Your task to perform on an android device: check battery use Image 0: 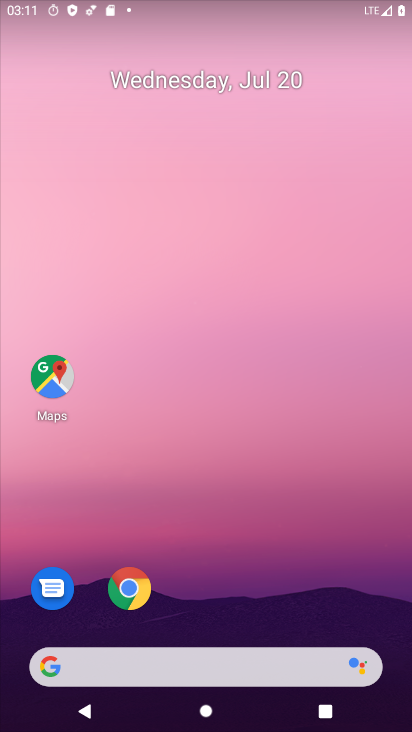
Step 0: drag from (190, 631) to (207, 223)
Your task to perform on an android device: check battery use Image 1: 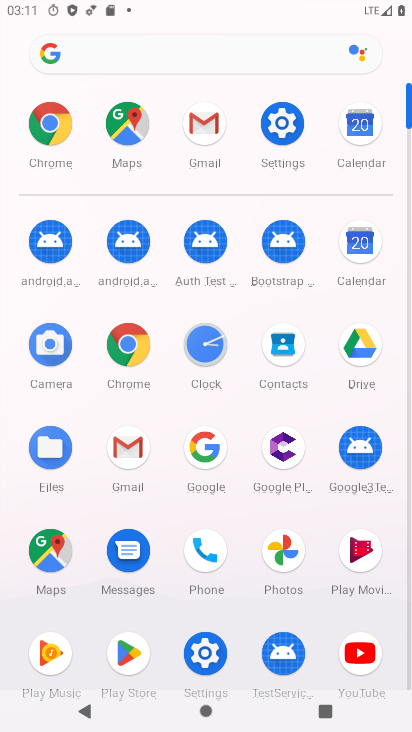
Step 1: click (203, 659)
Your task to perform on an android device: check battery use Image 2: 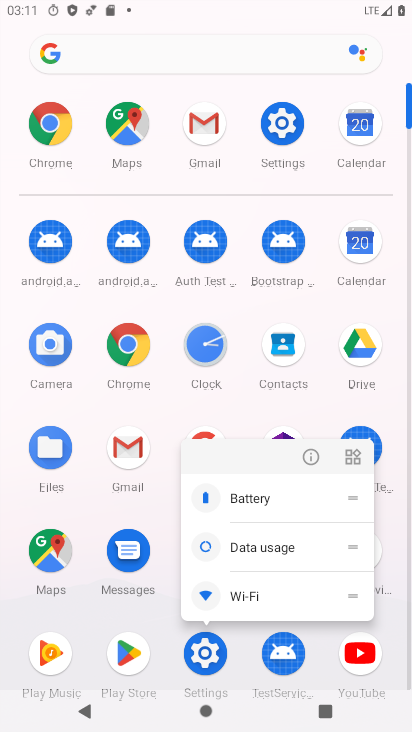
Step 2: click (311, 464)
Your task to perform on an android device: check battery use Image 3: 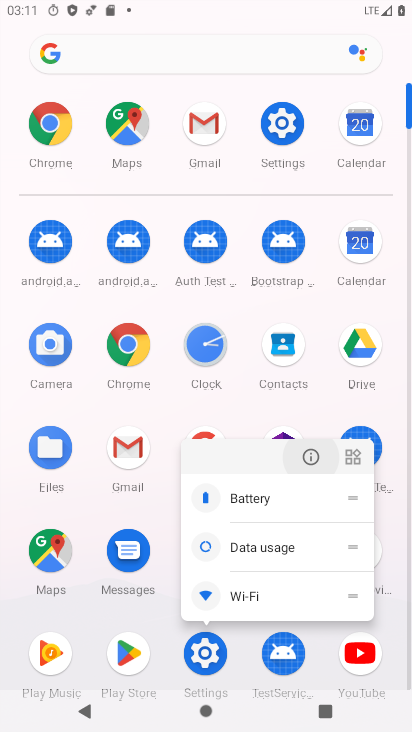
Step 3: click (311, 464)
Your task to perform on an android device: check battery use Image 4: 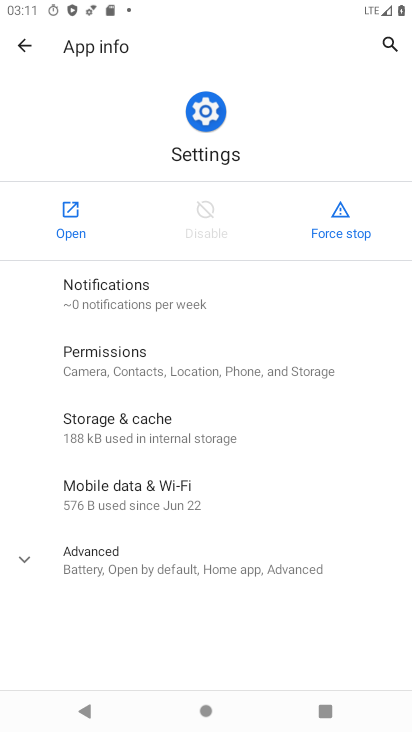
Step 4: click (81, 212)
Your task to perform on an android device: check battery use Image 5: 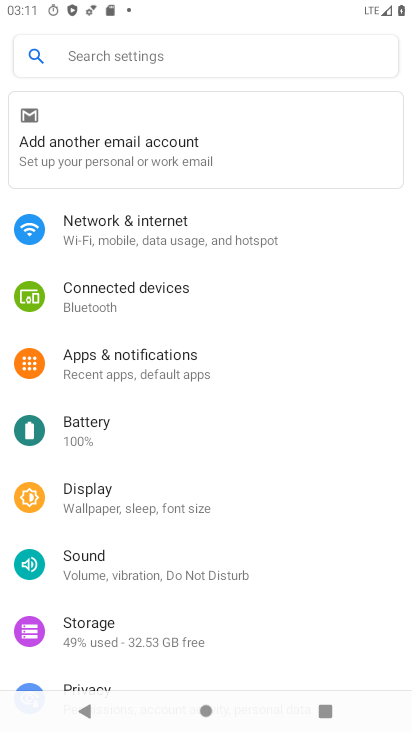
Step 5: click (115, 425)
Your task to perform on an android device: check battery use Image 6: 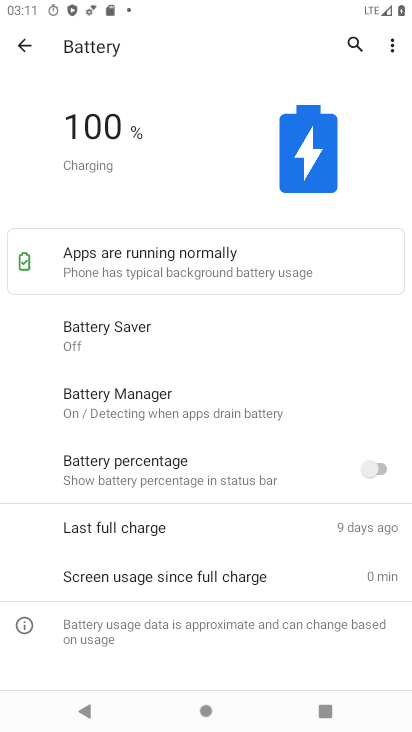
Step 6: task complete